Your task to perform on an android device: check storage Image 0: 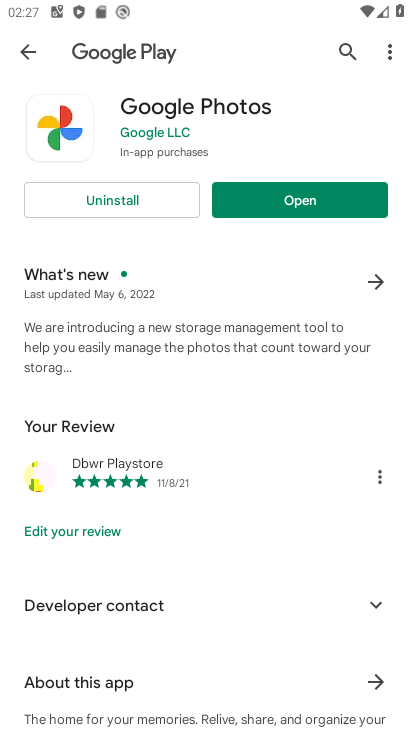
Step 0: press home button
Your task to perform on an android device: check storage Image 1: 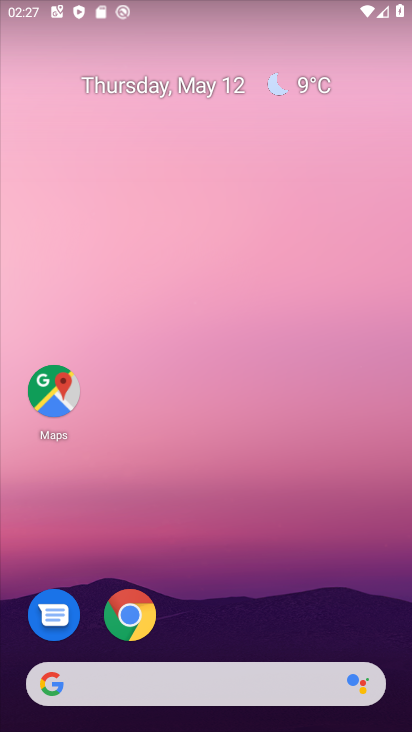
Step 1: drag from (222, 683) to (211, 338)
Your task to perform on an android device: check storage Image 2: 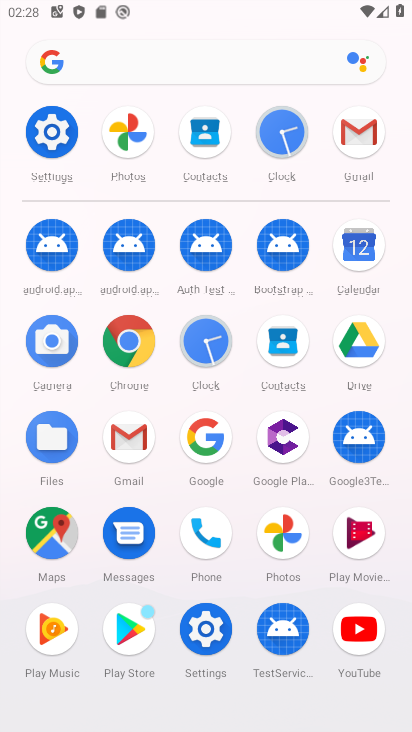
Step 2: click (60, 138)
Your task to perform on an android device: check storage Image 3: 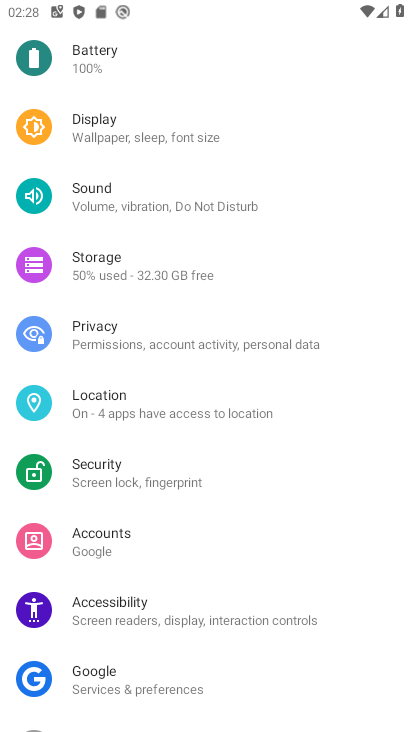
Step 3: click (99, 277)
Your task to perform on an android device: check storage Image 4: 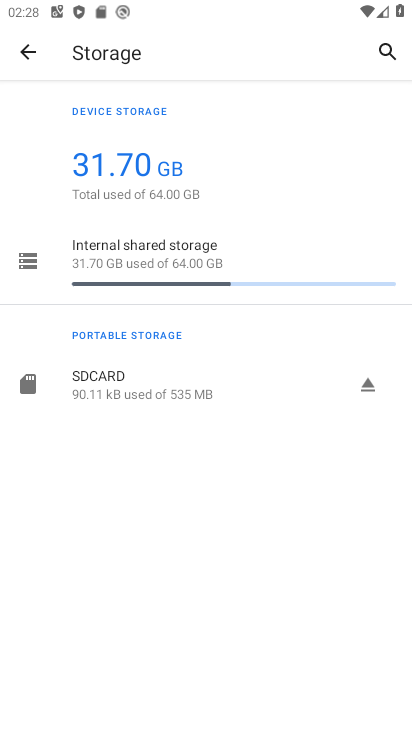
Step 4: task complete